Your task to perform on an android device: change the clock display to show seconds Image 0: 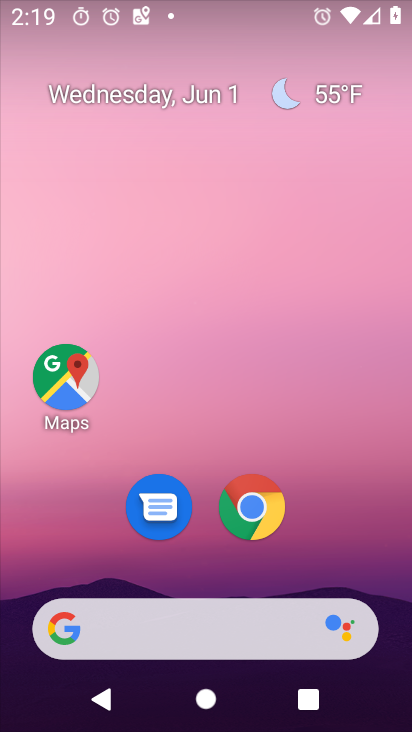
Step 0: drag from (328, 584) to (341, 20)
Your task to perform on an android device: change the clock display to show seconds Image 1: 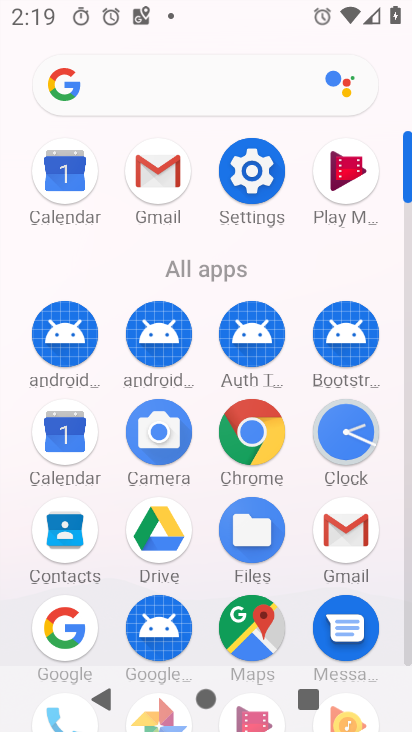
Step 1: click (350, 426)
Your task to perform on an android device: change the clock display to show seconds Image 2: 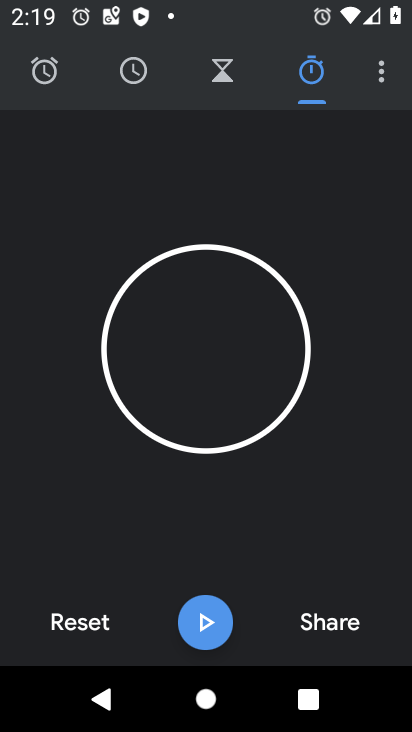
Step 2: click (381, 77)
Your task to perform on an android device: change the clock display to show seconds Image 3: 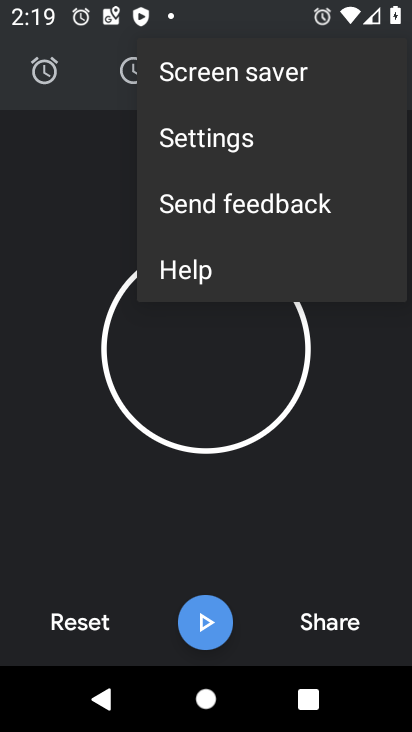
Step 3: click (218, 146)
Your task to perform on an android device: change the clock display to show seconds Image 4: 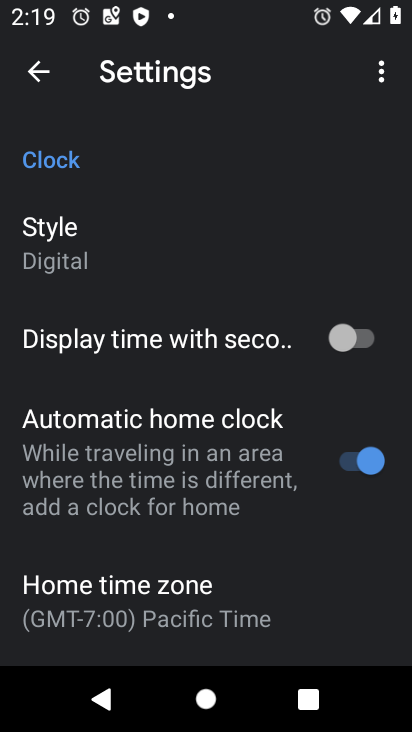
Step 4: click (330, 345)
Your task to perform on an android device: change the clock display to show seconds Image 5: 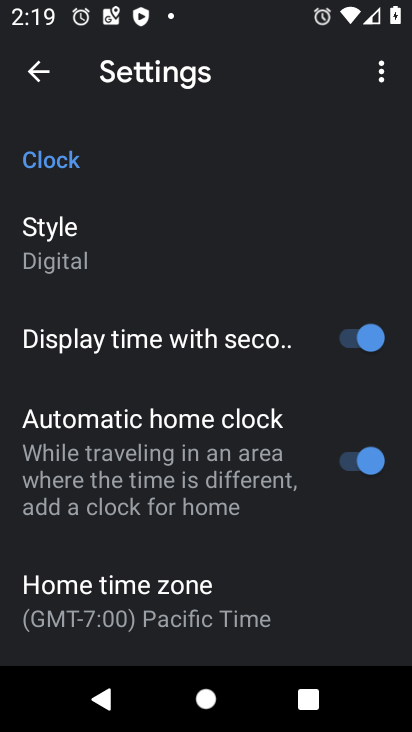
Step 5: task complete